Your task to perform on an android device: Search for sushi restaurants on Maps Image 0: 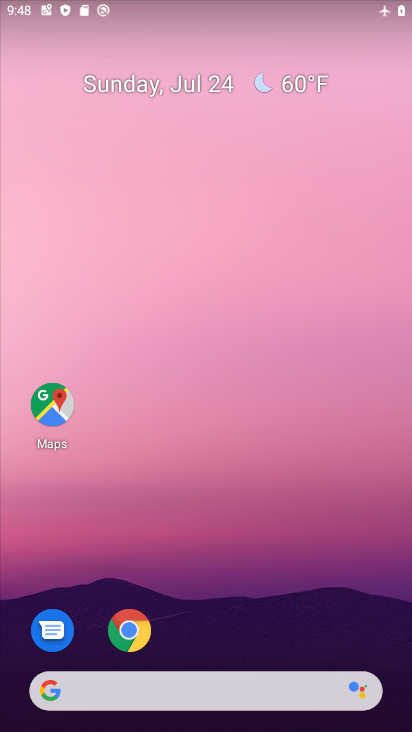
Step 0: click (59, 398)
Your task to perform on an android device: Search for sushi restaurants on Maps Image 1: 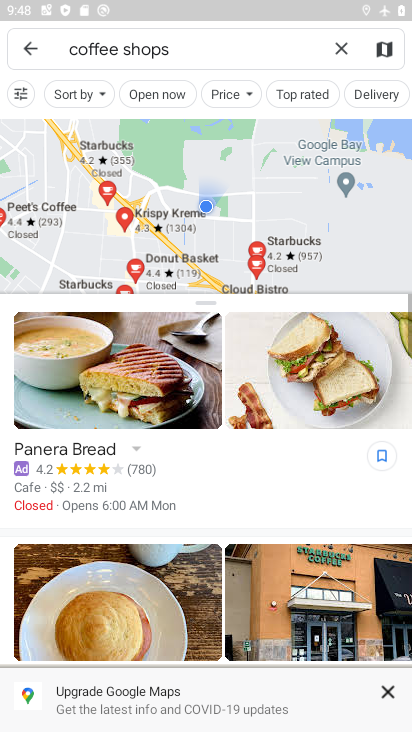
Step 1: click (342, 49)
Your task to perform on an android device: Search for sushi restaurants on Maps Image 2: 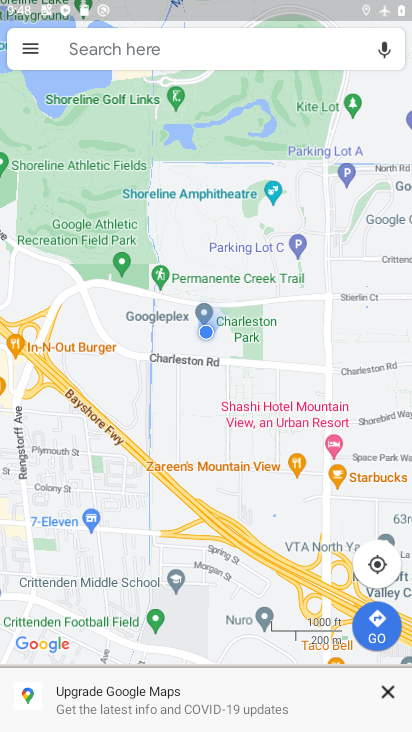
Step 2: click (182, 51)
Your task to perform on an android device: Search for sushi restaurants on Maps Image 3: 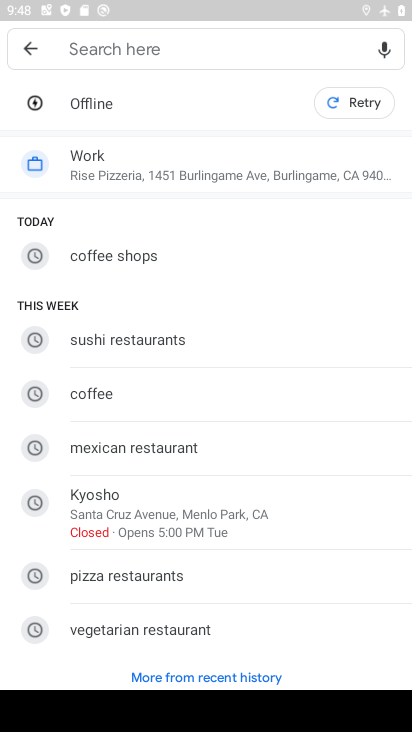
Step 3: type "Sushi restaurants"
Your task to perform on an android device: Search for sushi restaurants on Maps Image 4: 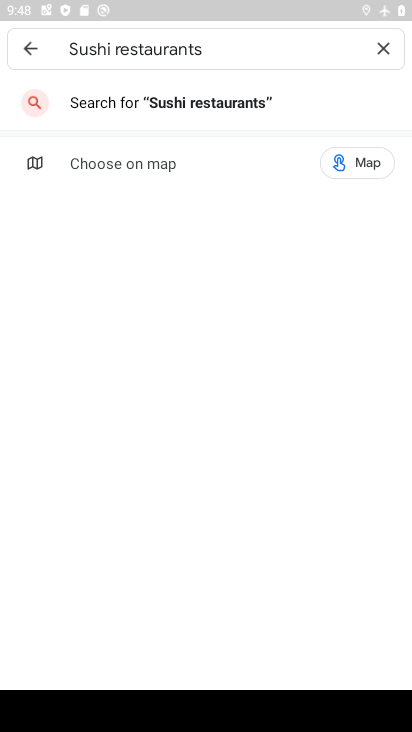
Step 4: click (236, 97)
Your task to perform on an android device: Search for sushi restaurants on Maps Image 5: 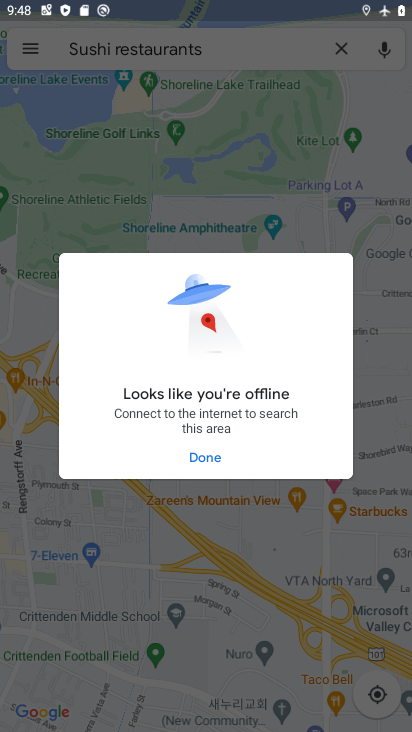
Step 5: click (214, 459)
Your task to perform on an android device: Search for sushi restaurants on Maps Image 6: 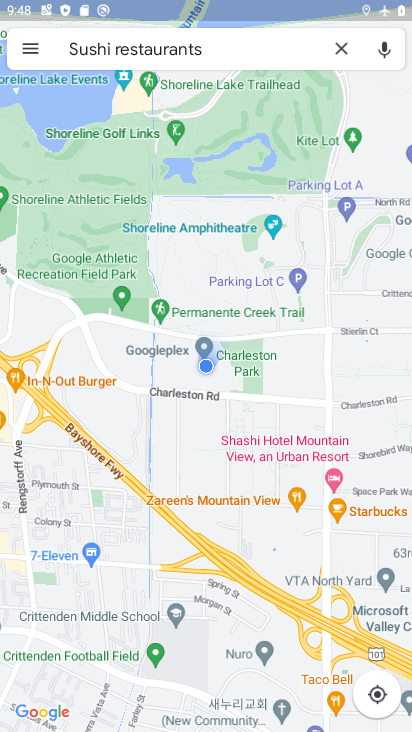
Step 6: task complete